Your task to perform on an android device: install app "NewsBreak: Local News & Alerts" Image 0: 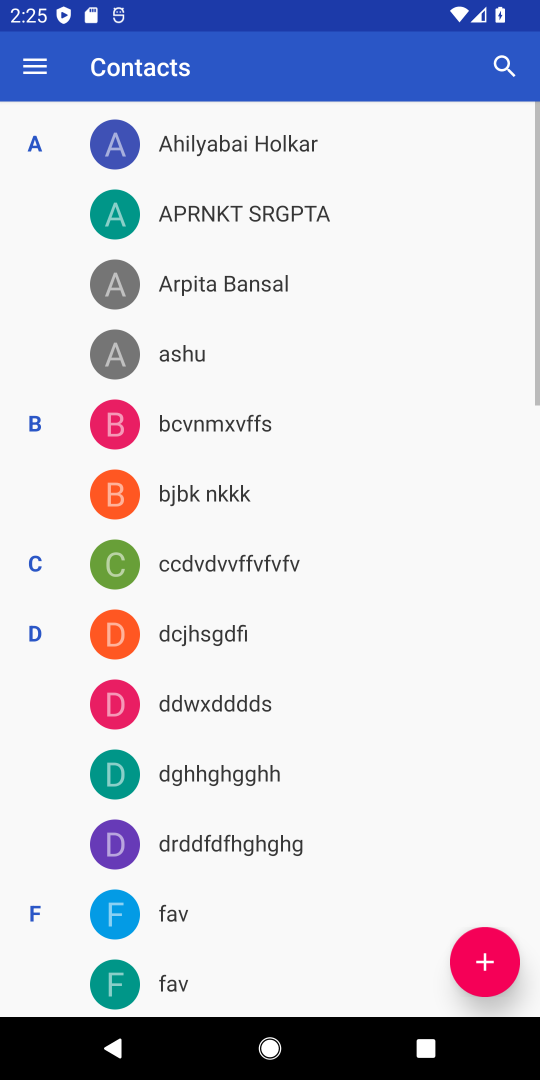
Step 0: press home button
Your task to perform on an android device: install app "NewsBreak: Local News & Alerts" Image 1: 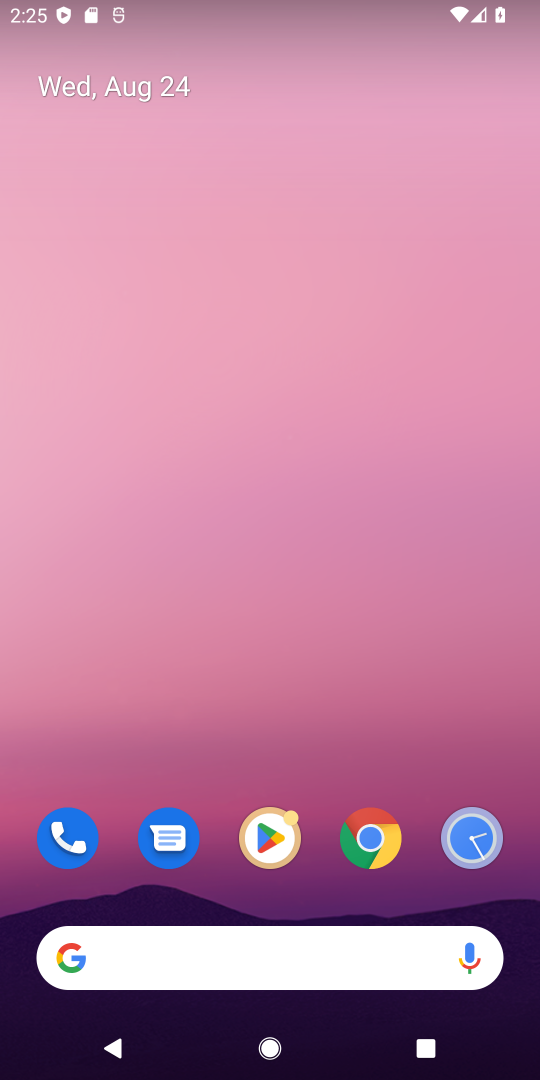
Step 1: drag from (467, 694) to (483, 53)
Your task to perform on an android device: install app "NewsBreak: Local News & Alerts" Image 2: 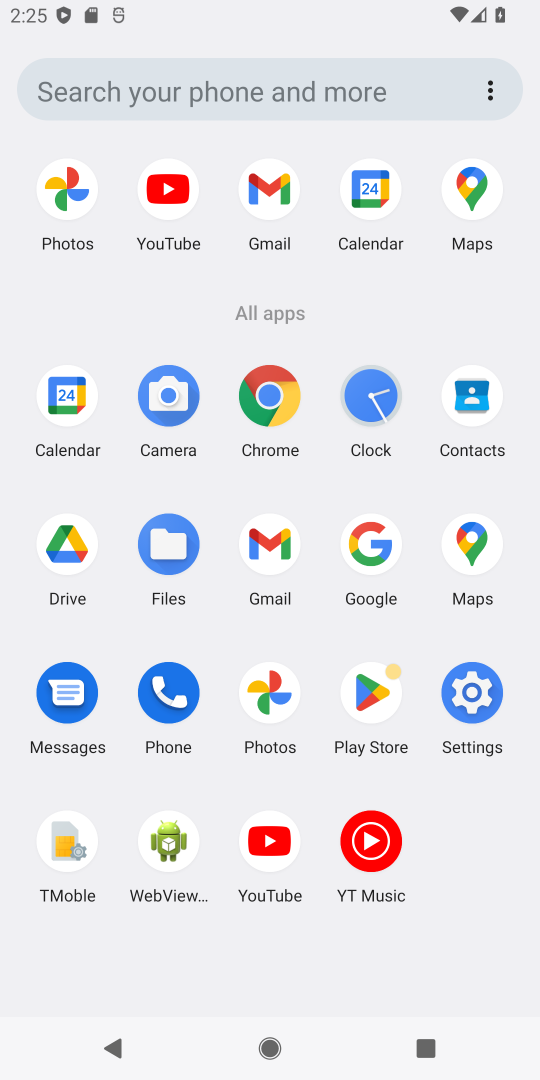
Step 2: click (371, 700)
Your task to perform on an android device: install app "NewsBreak: Local News & Alerts" Image 3: 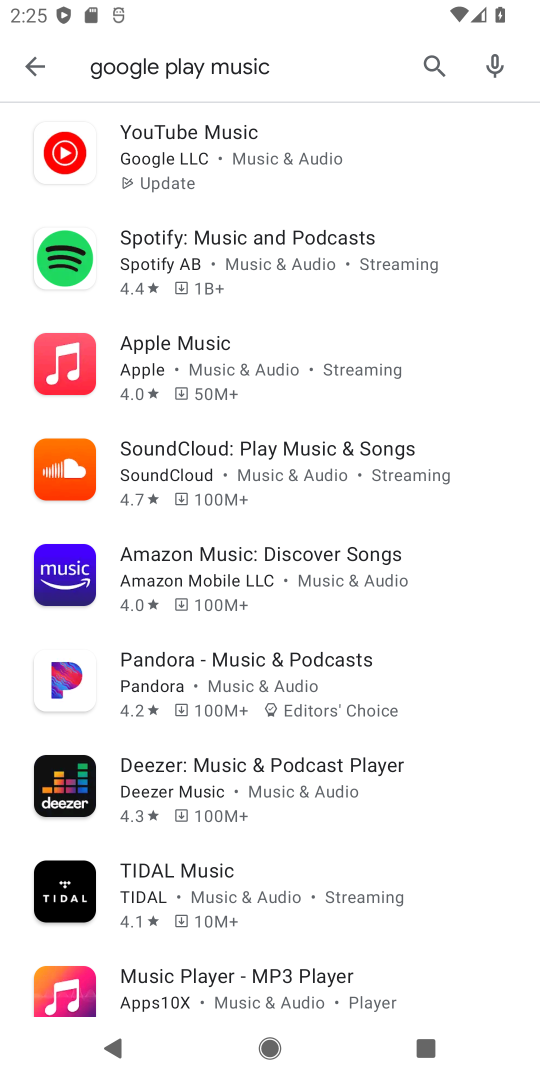
Step 3: press back button
Your task to perform on an android device: install app "NewsBreak: Local News & Alerts" Image 4: 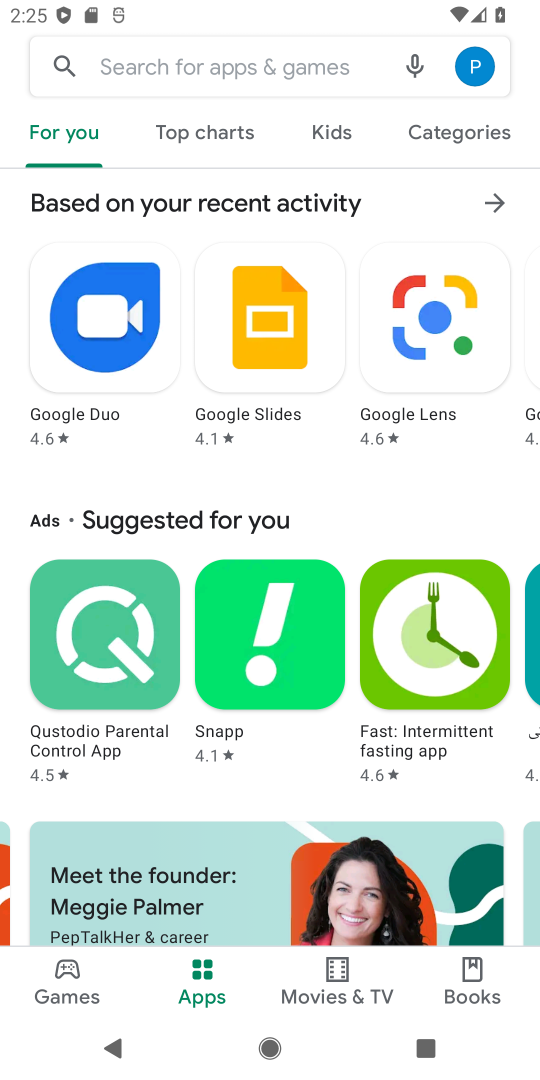
Step 4: click (271, 62)
Your task to perform on an android device: install app "NewsBreak: Local News & Alerts" Image 5: 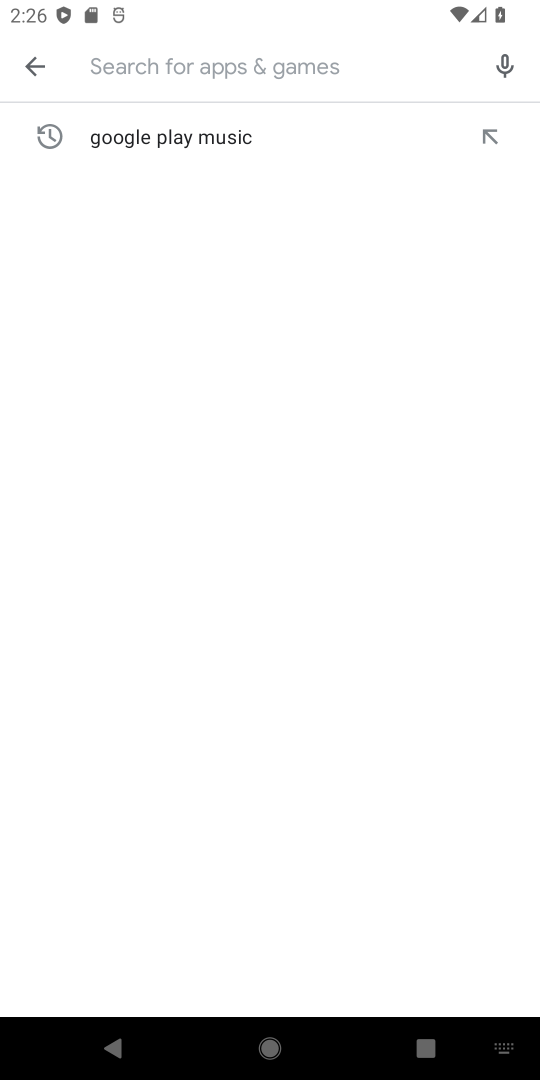
Step 5: type "NewsBreak: Local News & Alerts"
Your task to perform on an android device: install app "NewsBreak: Local News & Alerts" Image 6: 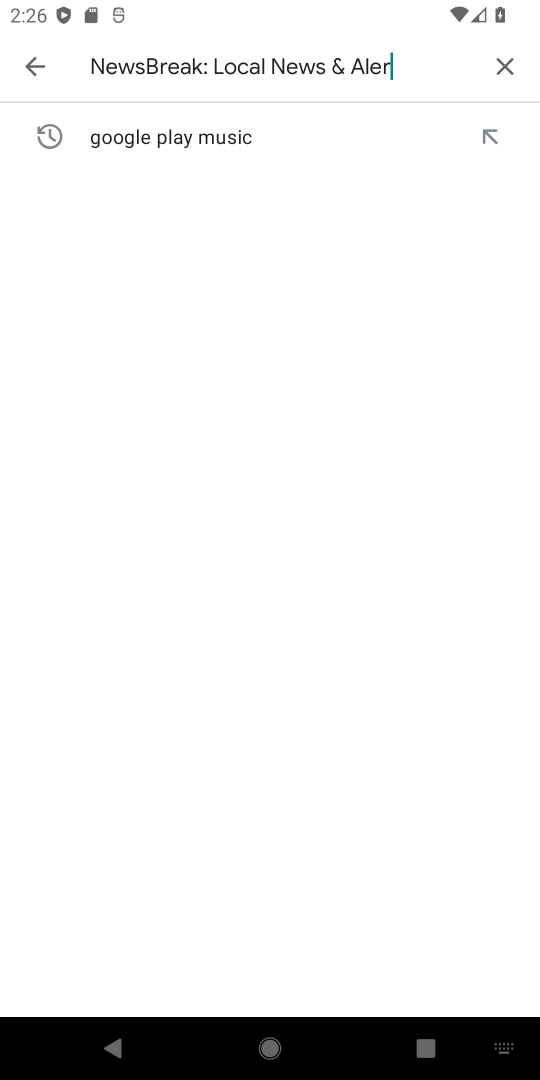
Step 6: press enter
Your task to perform on an android device: install app "NewsBreak: Local News & Alerts" Image 7: 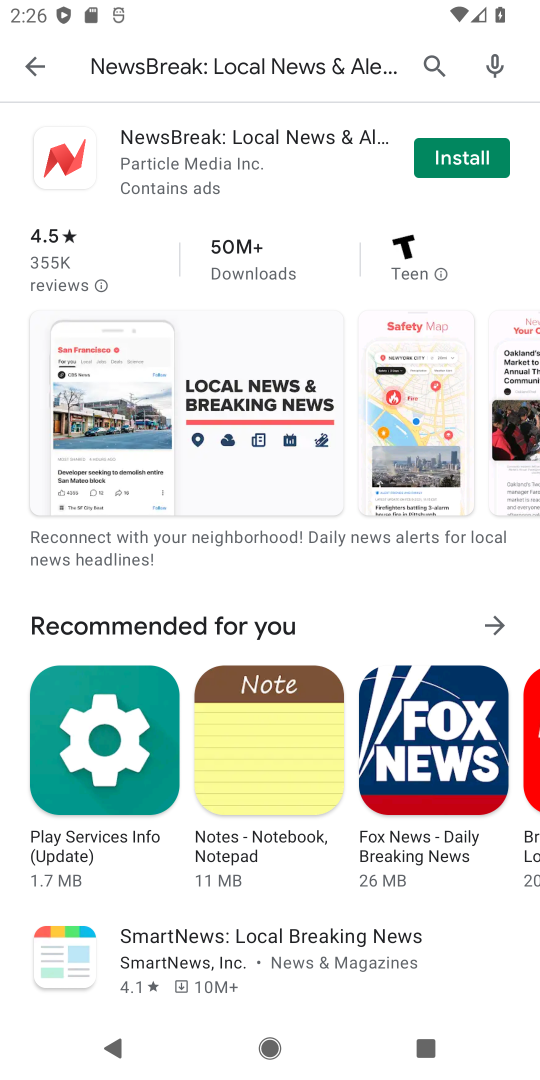
Step 7: click (474, 156)
Your task to perform on an android device: install app "NewsBreak: Local News & Alerts" Image 8: 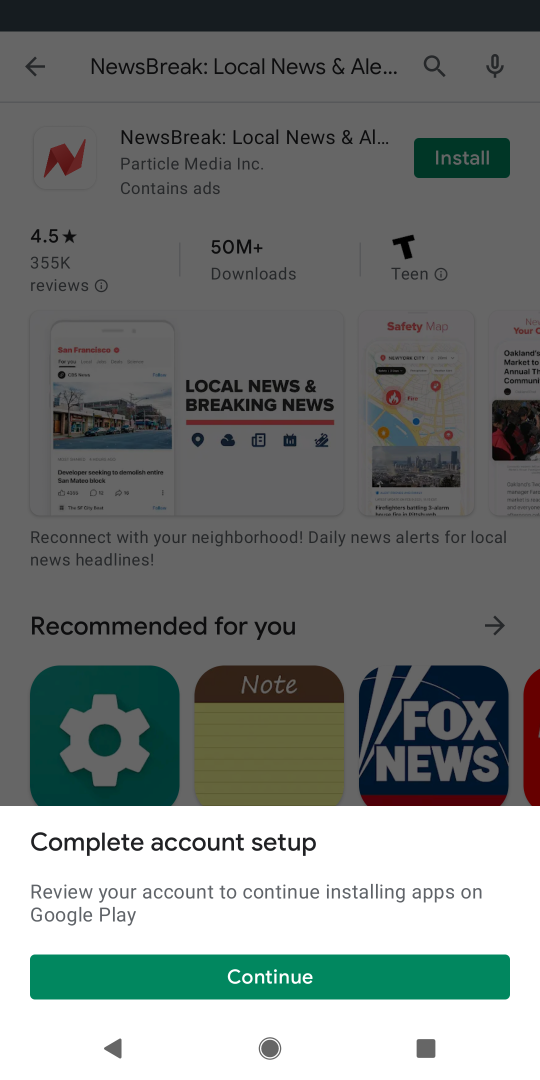
Step 8: click (348, 981)
Your task to perform on an android device: install app "NewsBreak: Local News & Alerts" Image 9: 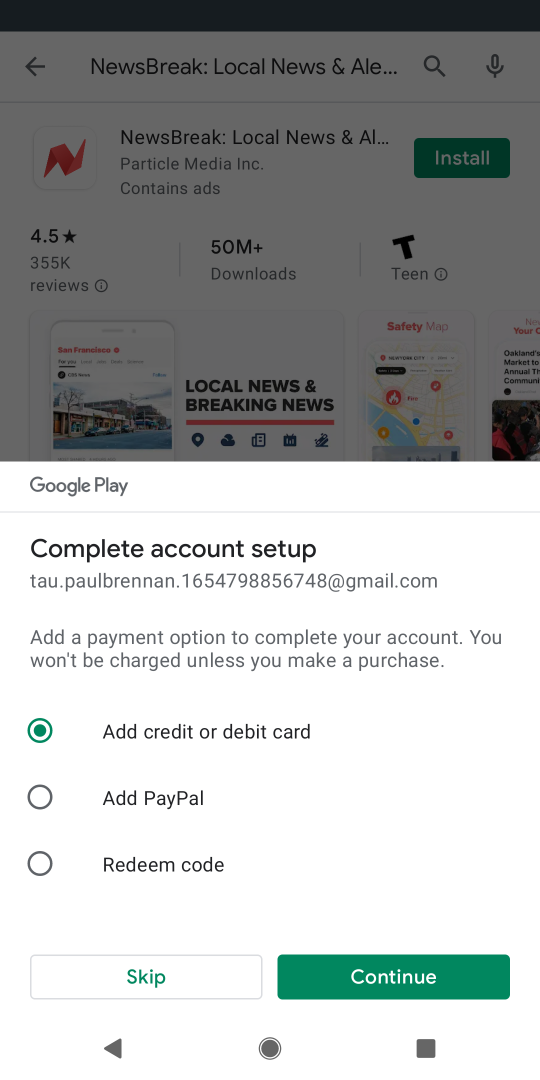
Step 9: click (164, 982)
Your task to perform on an android device: install app "NewsBreak: Local News & Alerts" Image 10: 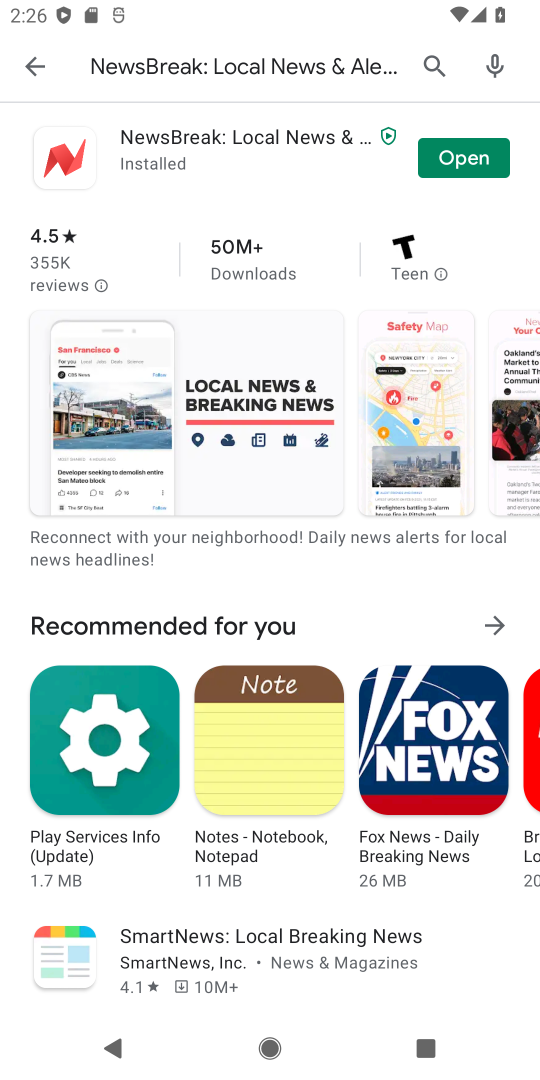
Step 10: task complete